Your task to perform on an android device: show emergency info Image 0: 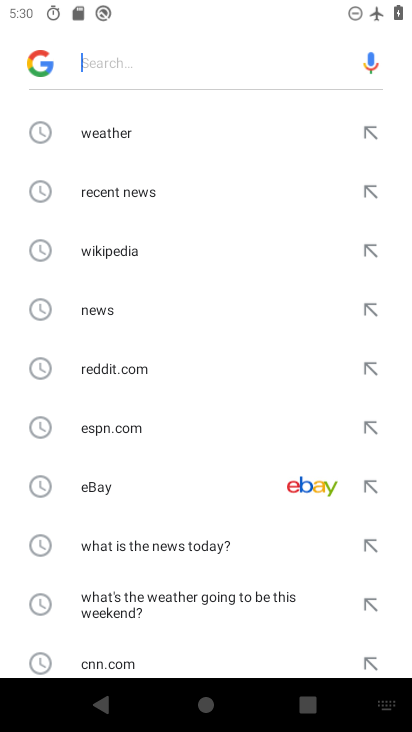
Step 0: press home button
Your task to perform on an android device: show emergency info Image 1: 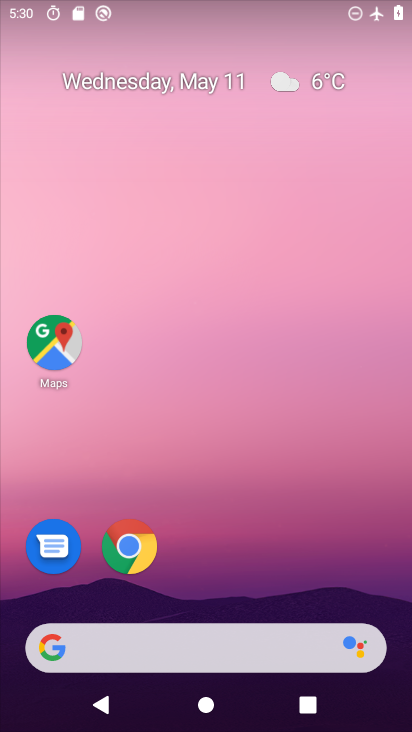
Step 1: drag from (160, 620) to (108, 235)
Your task to perform on an android device: show emergency info Image 2: 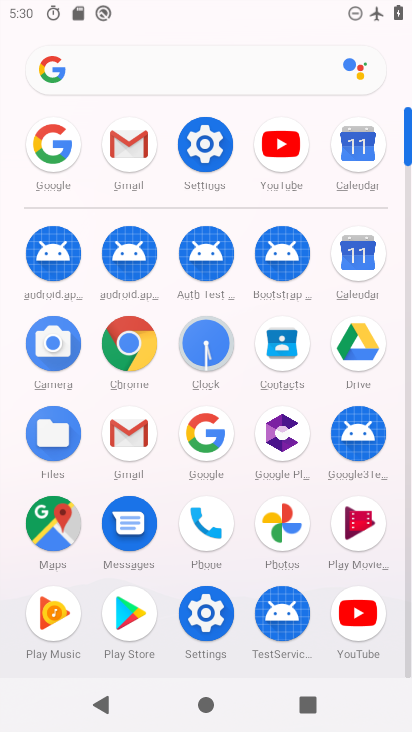
Step 2: click (198, 145)
Your task to perform on an android device: show emergency info Image 3: 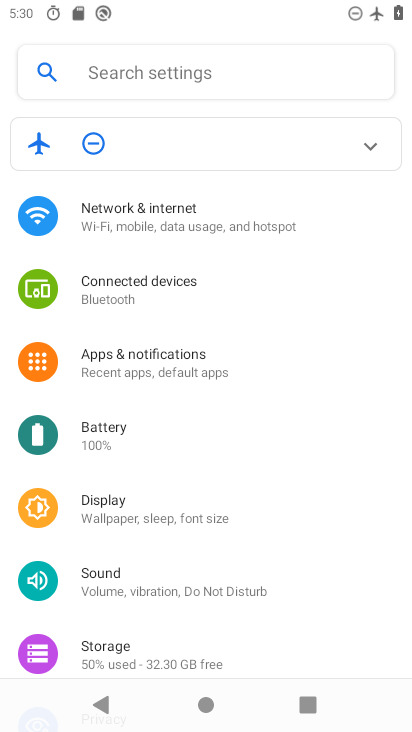
Step 3: drag from (220, 660) to (192, 261)
Your task to perform on an android device: show emergency info Image 4: 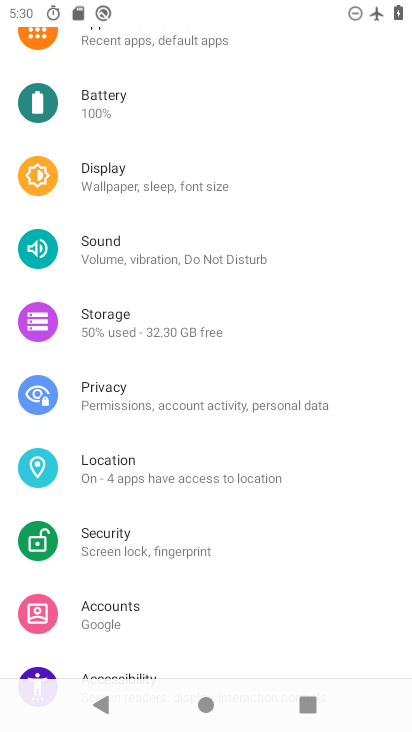
Step 4: drag from (184, 625) to (140, 344)
Your task to perform on an android device: show emergency info Image 5: 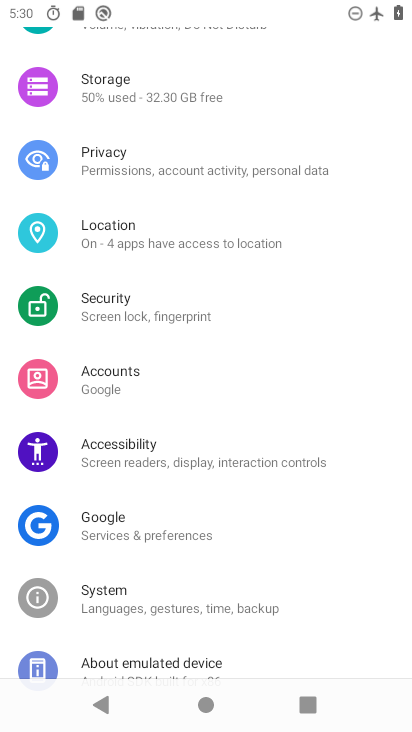
Step 5: click (168, 667)
Your task to perform on an android device: show emergency info Image 6: 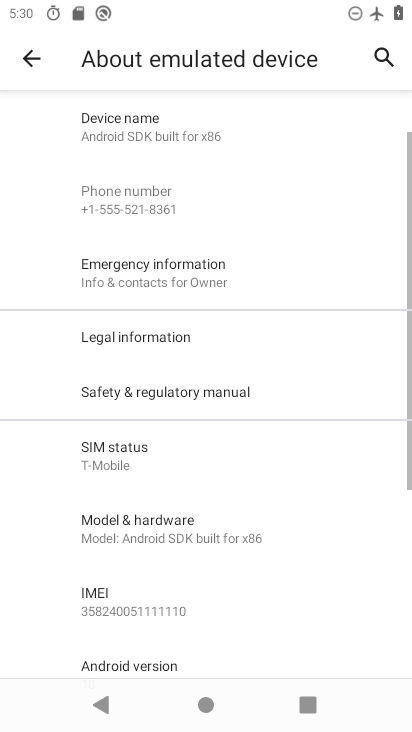
Step 6: click (153, 268)
Your task to perform on an android device: show emergency info Image 7: 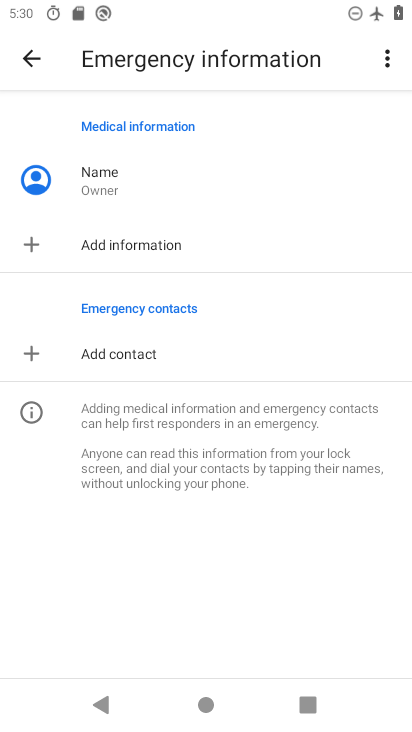
Step 7: task complete